Your task to perform on an android device: Open calendar and show me the first week of next month Image 0: 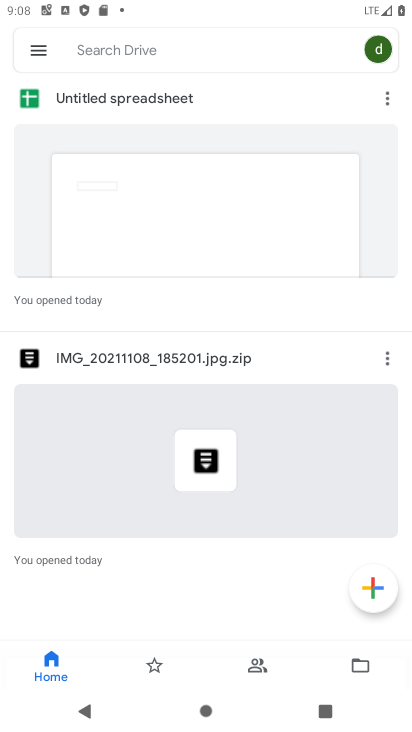
Step 0: press home button
Your task to perform on an android device: Open calendar and show me the first week of next month Image 1: 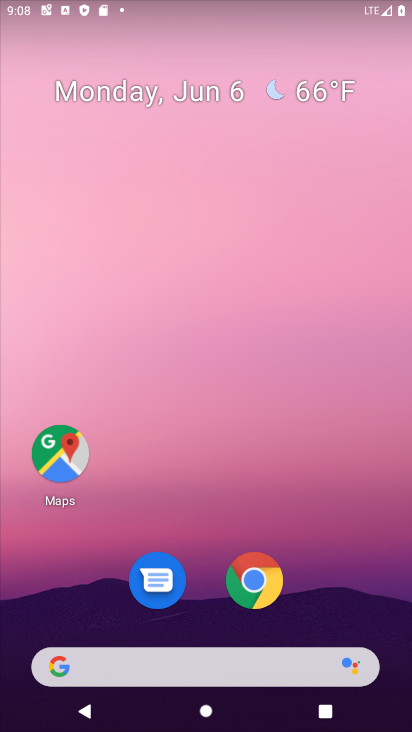
Step 1: drag from (317, 566) to (252, 0)
Your task to perform on an android device: Open calendar and show me the first week of next month Image 2: 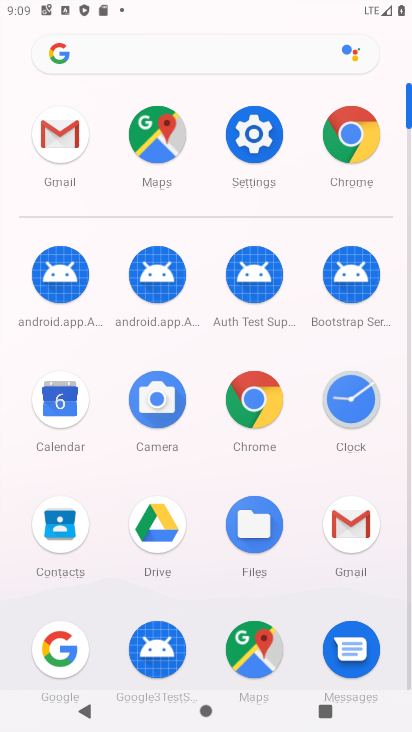
Step 2: click (78, 423)
Your task to perform on an android device: Open calendar and show me the first week of next month Image 3: 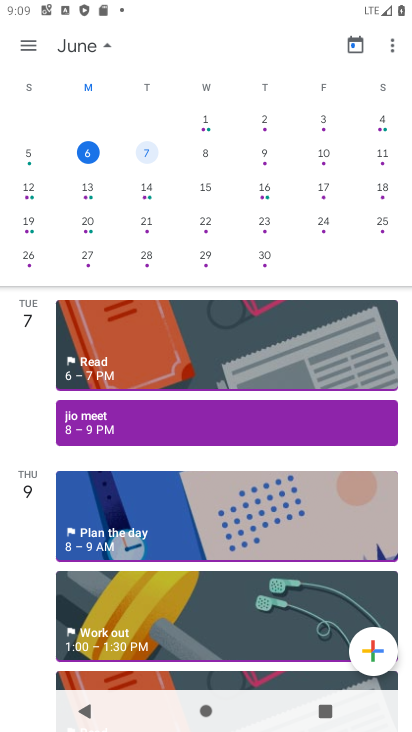
Step 3: task complete